Your task to perform on an android device: check out phone information Image 0: 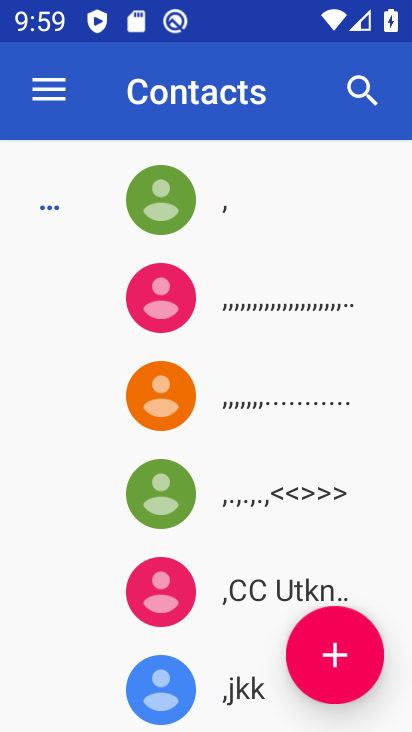
Step 0: press home button
Your task to perform on an android device: check out phone information Image 1: 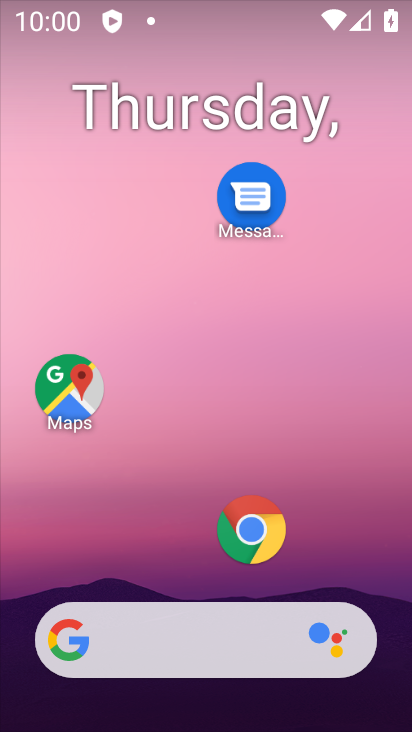
Step 1: drag from (131, 541) to (224, 3)
Your task to perform on an android device: check out phone information Image 2: 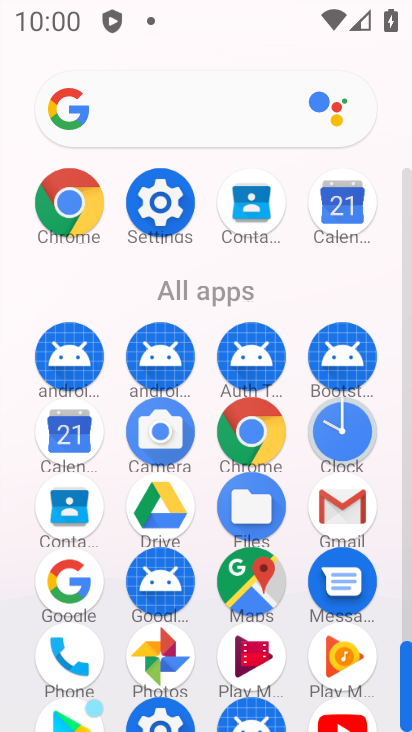
Step 2: click (160, 204)
Your task to perform on an android device: check out phone information Image 3: 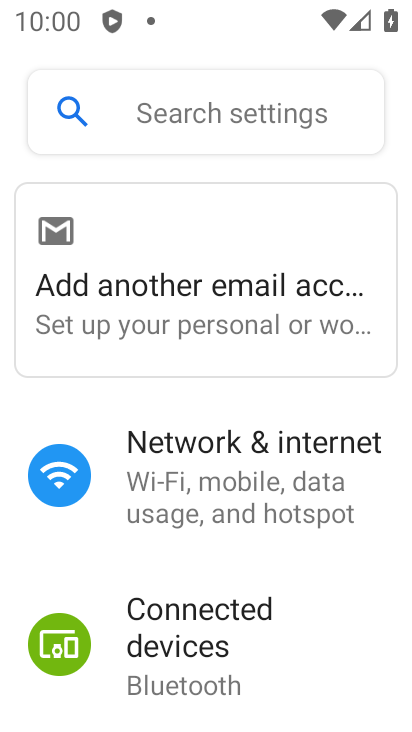
Step 3: drag from (182, 418) to (267, 170)
Your task to perform on an android device: check out phone information Image 4: 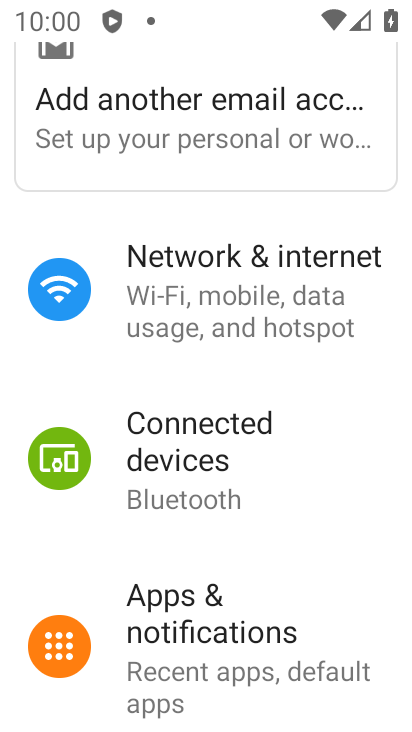
Step 4: drag from (202, 386) to (254, 207)
Your task to perform on an android device: check out phone information Image 5: 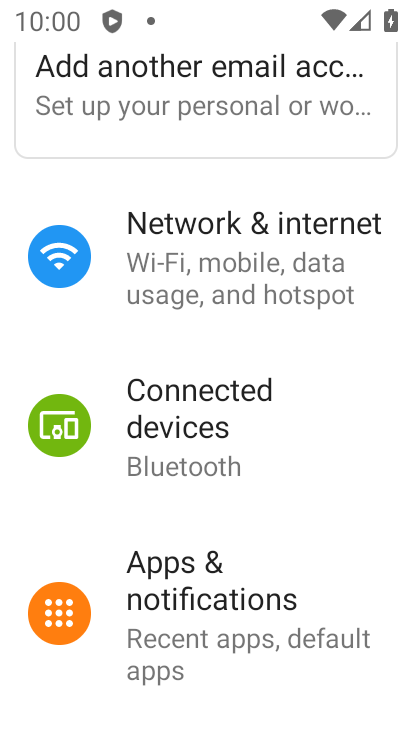
Step 5: drag from (196, 515) to (260, 316)
Your task to perform on an android device: check out phone information Image 6: 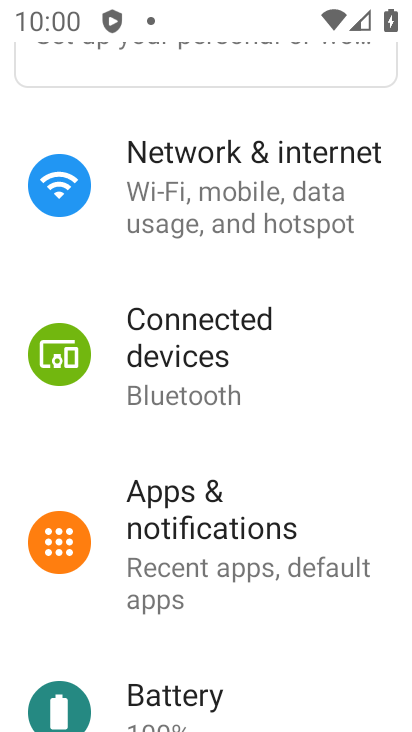
Step 6: drag from (204, 609) to (312, 416)
Your task to perform on an android device: check out phone information Image 7: 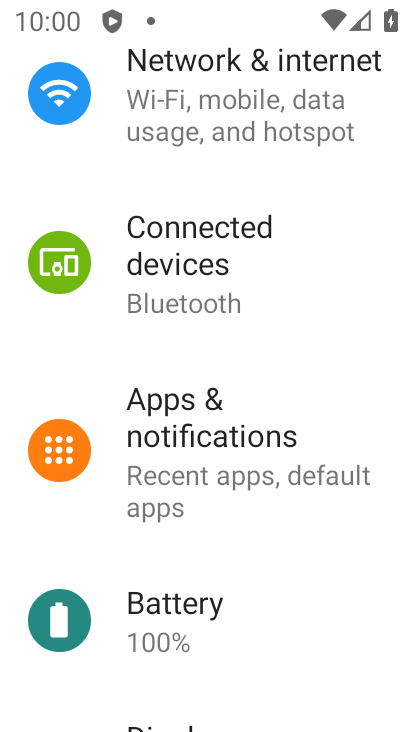
Step 7: drag from (191, 564) to (303, 353)
Your task to perform on an android device: check out phone information Image 8: 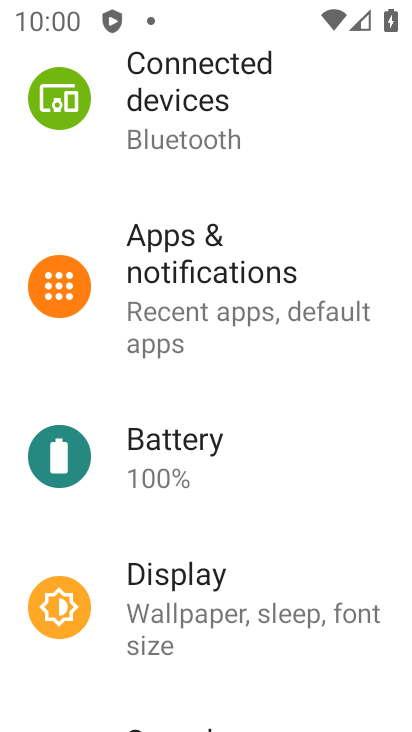
Step 8: drag from (210, 538) to (317, 313)
Your task to perform on an android device: check out phone information Image 9: 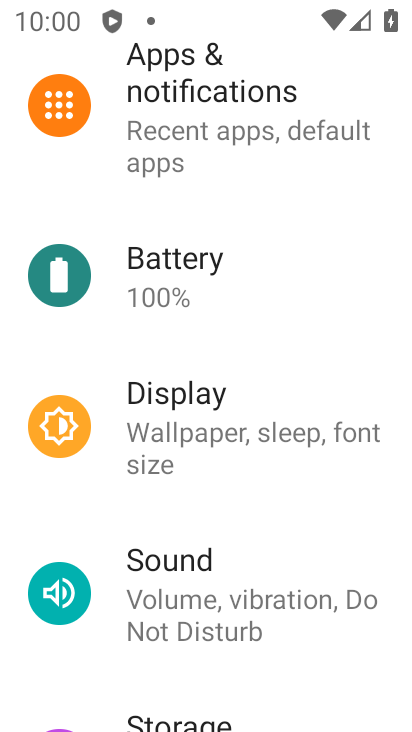
Step 9: drag from (200, 512) to (262, 273)
Your task to perform on an android device: check out phone information Image 10: 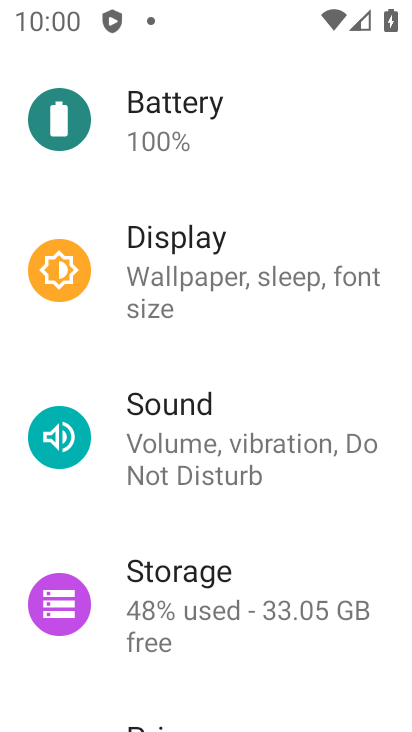
Step 10: drag from (161, 528) to (268, 355)
Your task to perform on an android device: check out phone information Image 11: 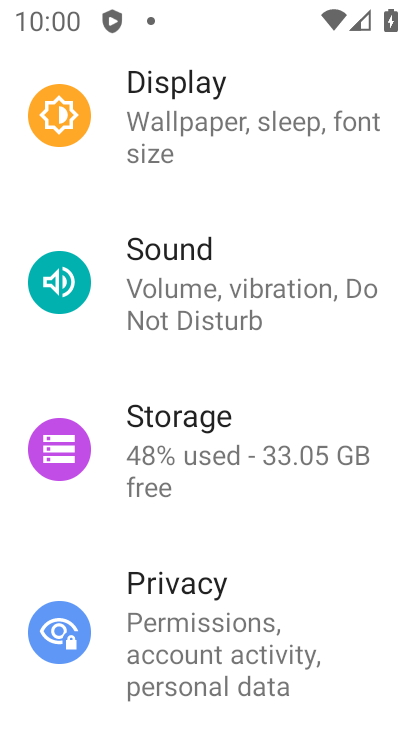
Step 11: drag from (199, 539) to (306, 360)
Your task to perform on an android device: check out phone information Image 12: 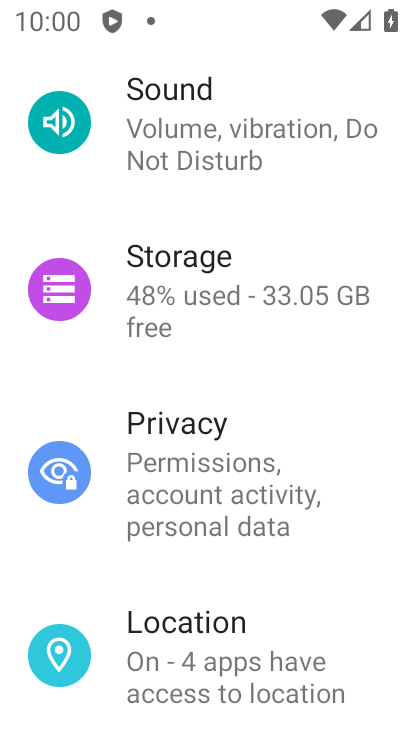
Step 12: drag from (182, 573) to (309, 395)
Your task to perform on an android device: check out phone information Image 13: 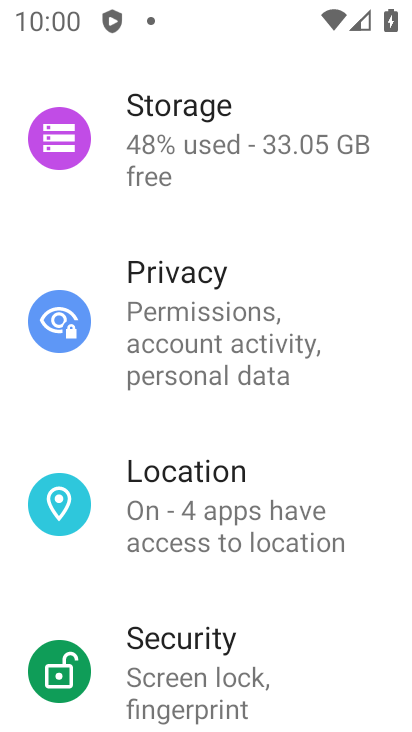
Step 13: drag from (147, 594) to (278, 362)
Your task to perform on an android device: check out phone information Image 14: 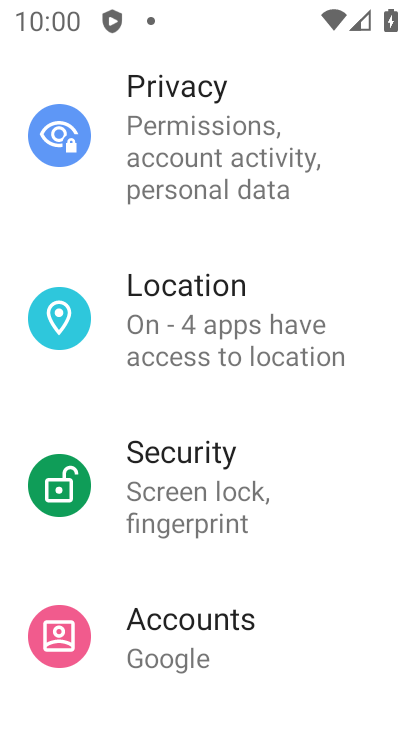
Step 14: drag from (137, 569) to (262, 354)
Your task to perform on an android device: check out phone information Image 15: 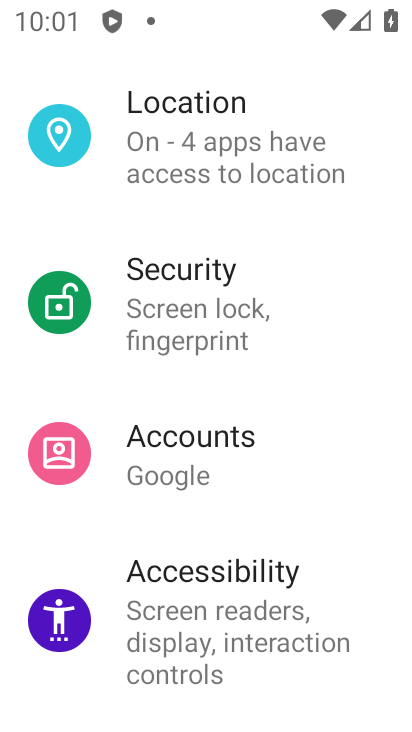
Step 15: drag from (144, 506) to (252, 345)
Your task to perform on an android device: check out phone information Image 16: 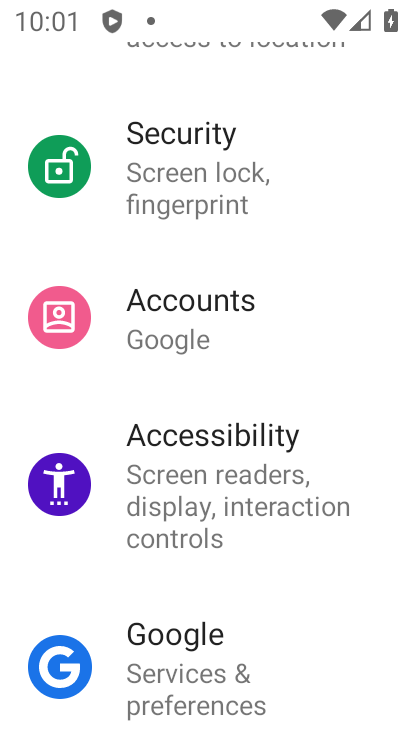
Step 16: drag from (146, 405) to (270, 249)
Your task to perform on an android device: check out phone information Image 17: 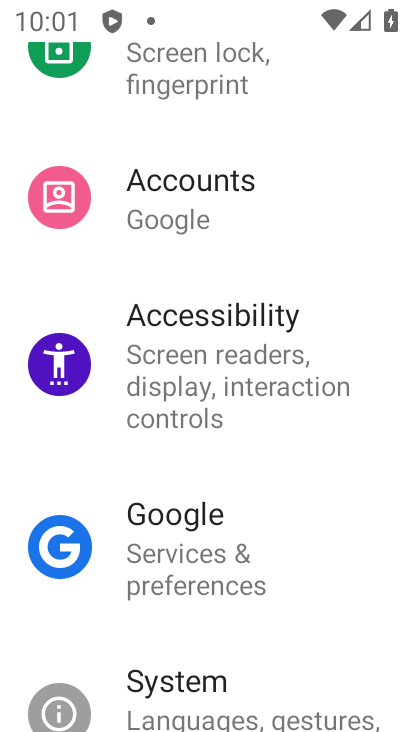
Step 17: drag from (150, 450) to (279, 281)
Your task to perform on an android device: check out phone information Image 18: 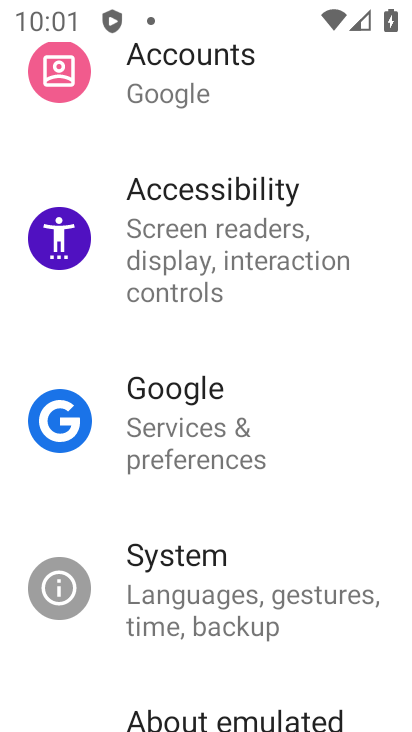
Step 18: drag from (156, 345) to (328, 195)
Your task to perform on an android device: check out phone information Image 19: 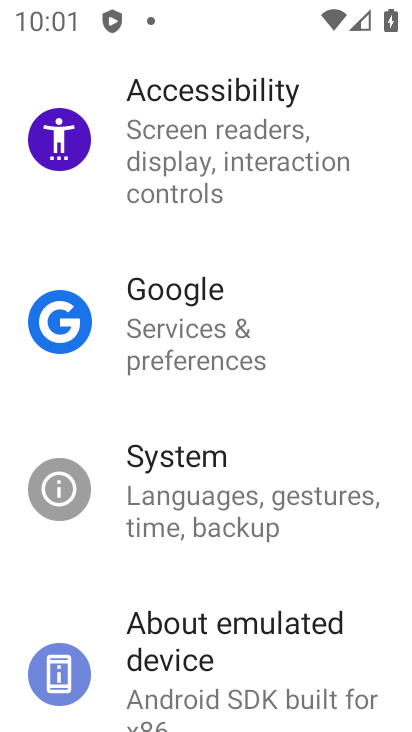
Step 19: drag from (163, 406) to (293, 235)
Your task to perform on an android device: check out phone information Image 20: 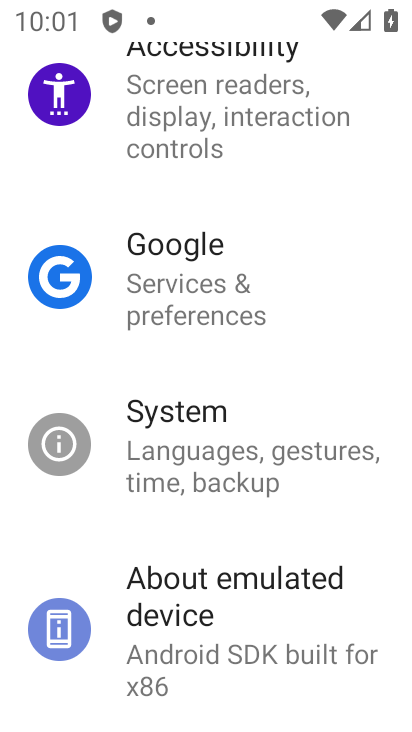
Step 20: click (184, 581)
Your task to perform on an android device: check out phone information Image 21: 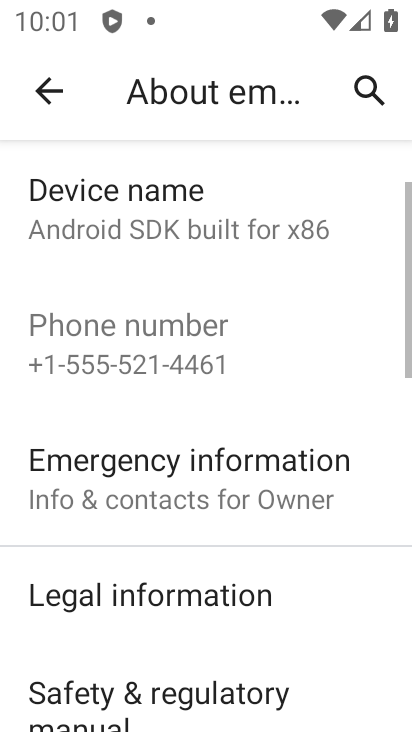
Step 21: task complete